Your task to perform on an android device: turn on javascript in the chrome app Image 0: 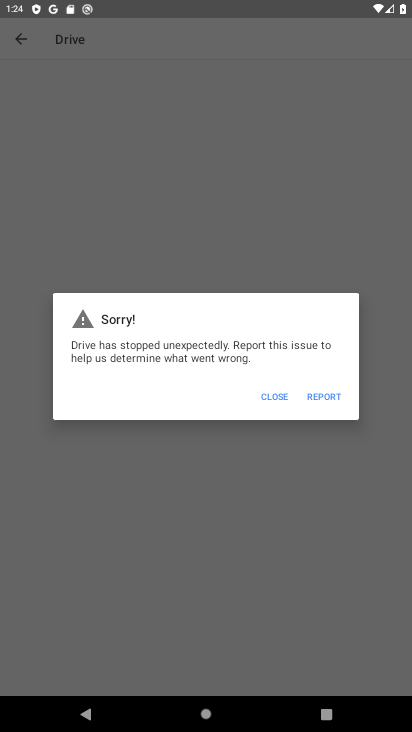
Step 0: press home button
Your task to perform on an android device: turn on javascript in the chrome app Image 1: 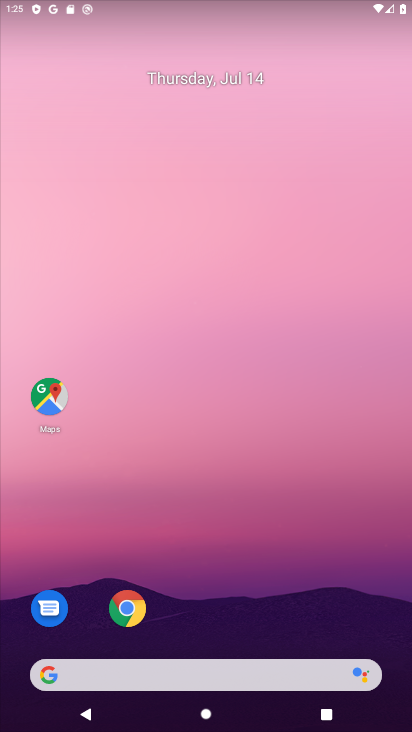
Step 1: click (133, 611)
Your task to perform on an android device: turn on javascript in the chrome app Image 2: 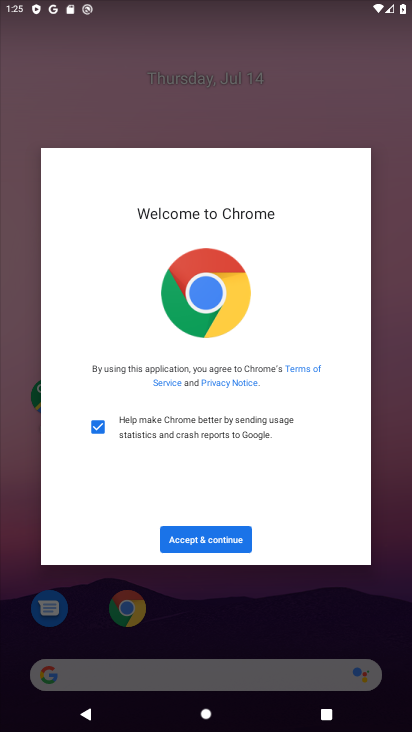
Step 2: click (210, 526)
Your task to perform on an android device: turn on javascript in the chrome app Image 3: 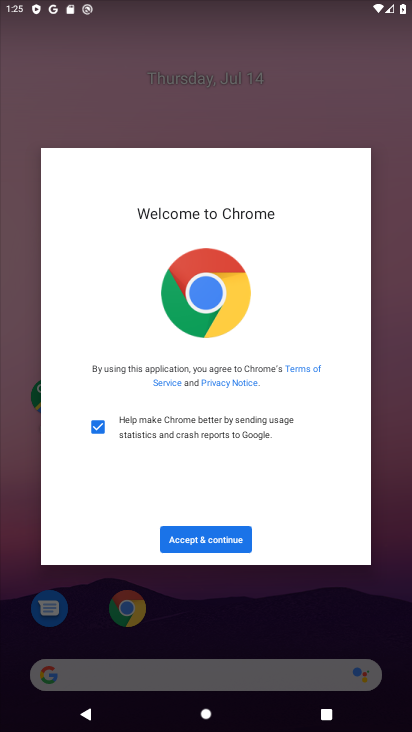
Step 3: click (212, 534)
Your task to perform on an android device: turn on javascript in the chrome app Image 4: 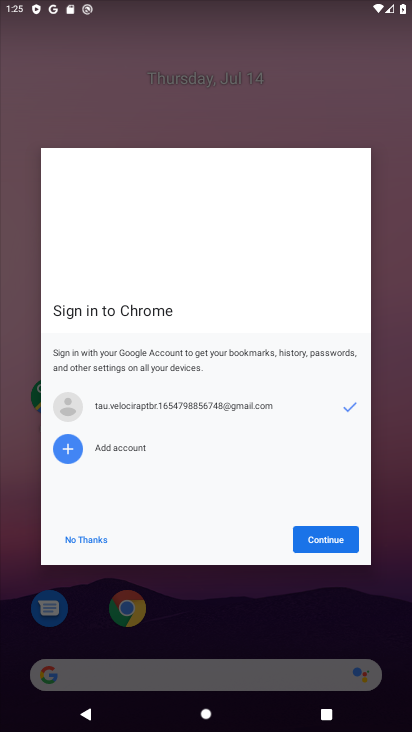
Step 4: click (302, 530)
Your task to perform on an android device: turn on javascript in the chrome app Image 5: 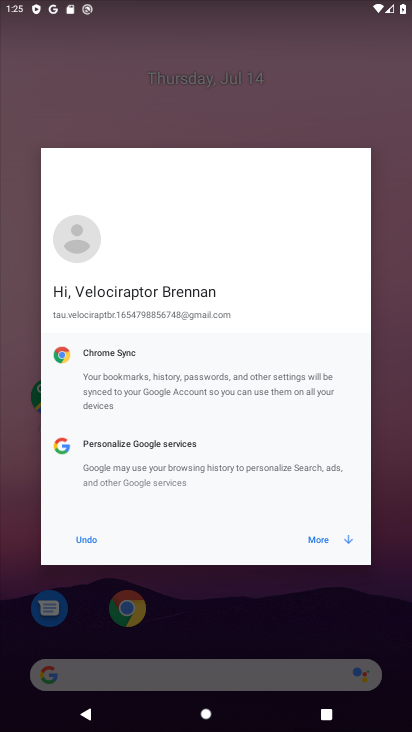
Step 5: click (335, 536)
Your task to perform on an android device: turn on javascript in the chrome app Image 6: 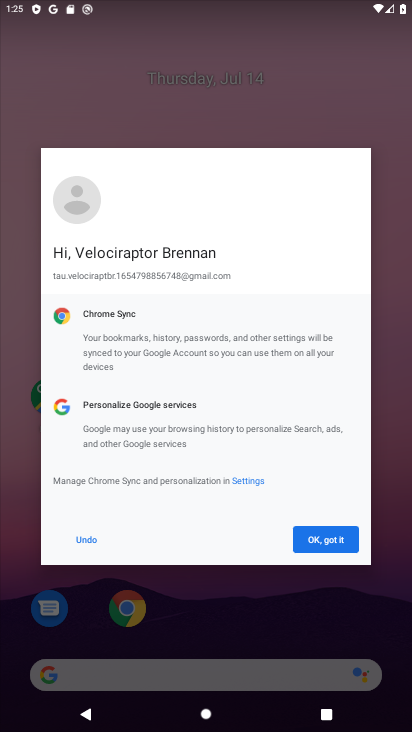
Step 6: click (339, 538)
Your task to perform on an android device: turn on javascript in the chrome app Image 7: 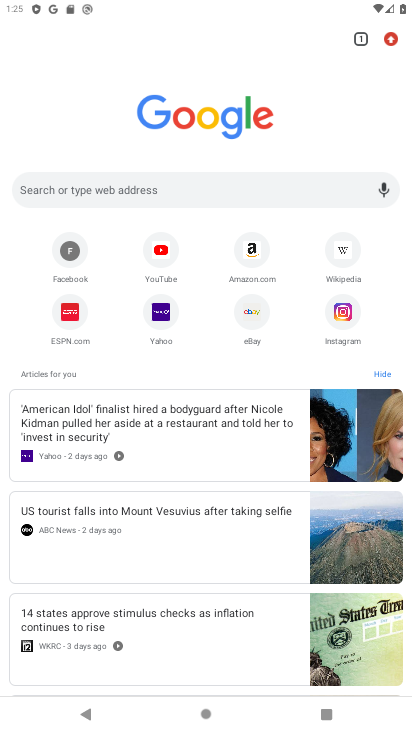
Step 7: click (386, 45)
Your task to perform on an android device: turn on javascript in the chrome app Image 8: 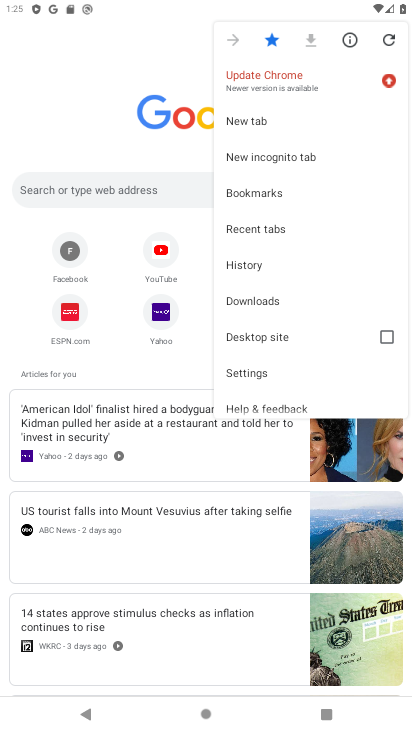
Step 8: click (248, 374)
Your task to perform on an android device: turn on javascript in the chrome app Image 9: 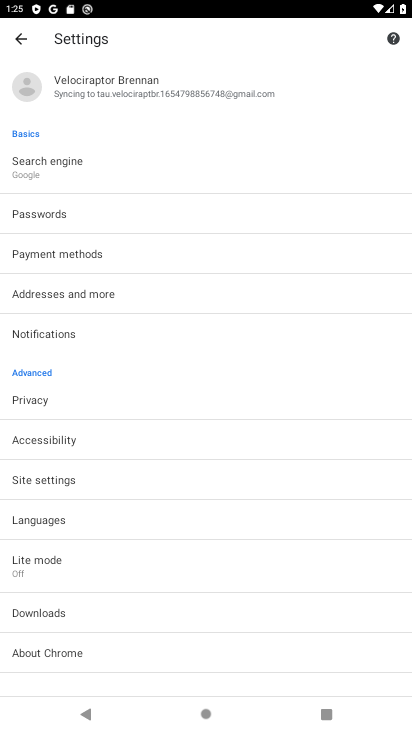
Step 9: click (69, 483)
Your task to perform on an android device: turn on javascript in the chrome app Image 10: 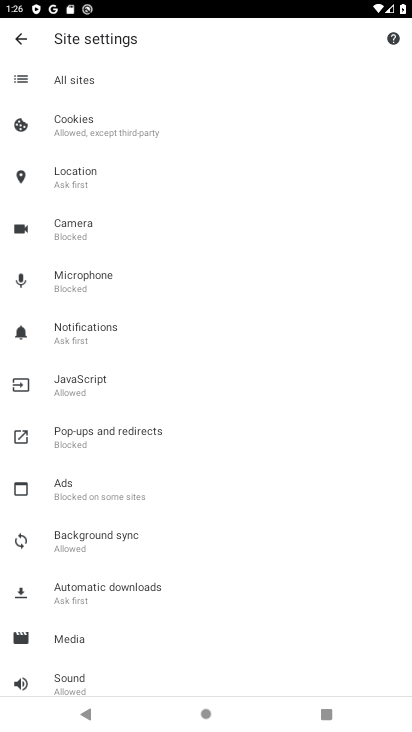
Step 10: click (97, 369)
Your task to perform on an android device: turn on javascript in the chrome app Image 11: 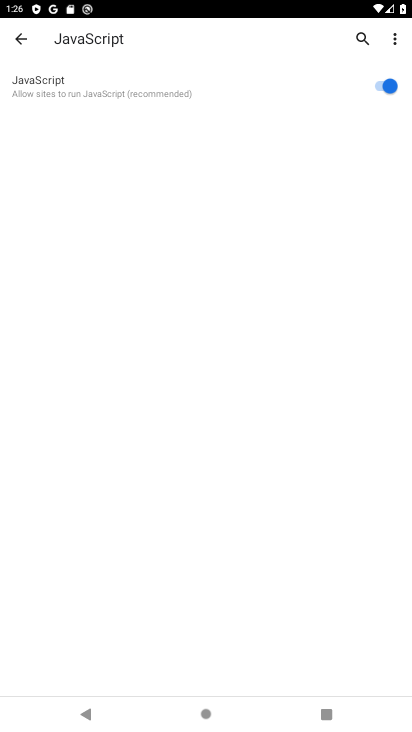
Step 11: click (376, 85)
Your task to perform on an android device: turn on javascript in the chrome app Image 12: 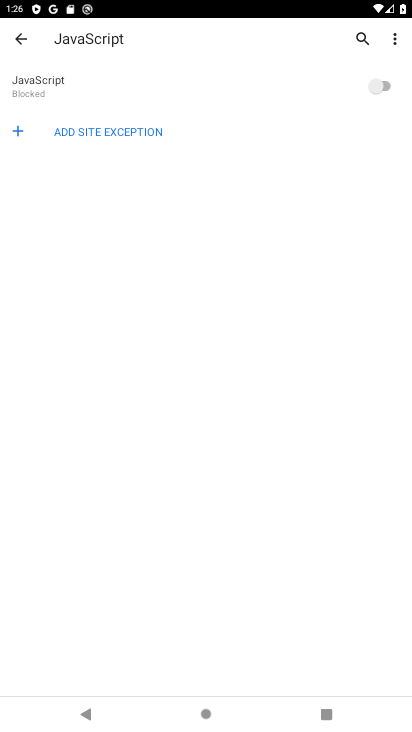
Step 12: click (370, 94)
Your task to perform on an android device: turn on javascript in the chrome app Image 13: 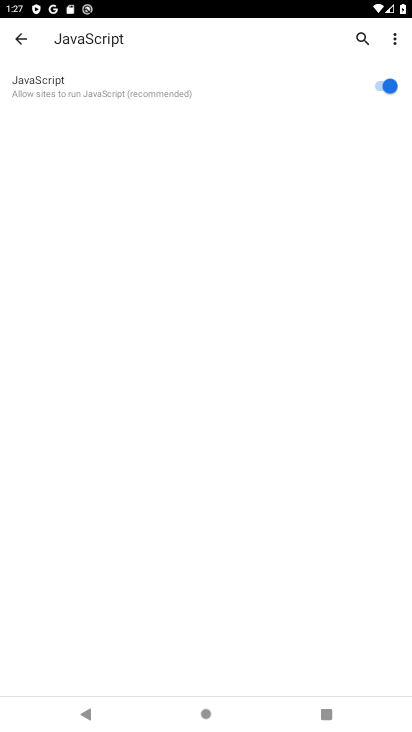
Step 13: task complete